Your task to perform on an android device: Find coffee shops on Maps Image 0: 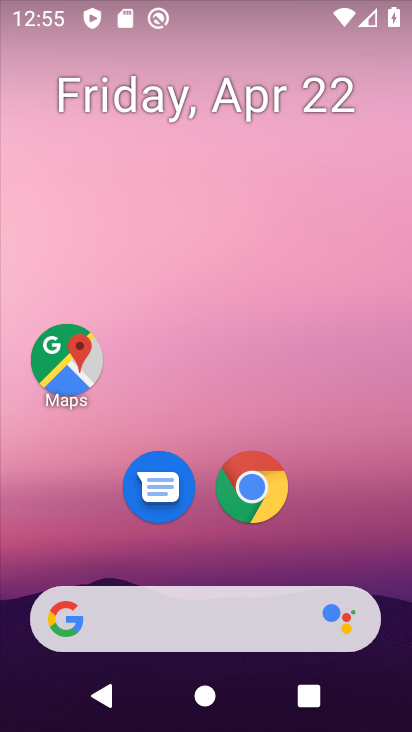
Step 0: click (70, 364)
Your task to perform on an android device: Find coffee shops on Maps Image 1: 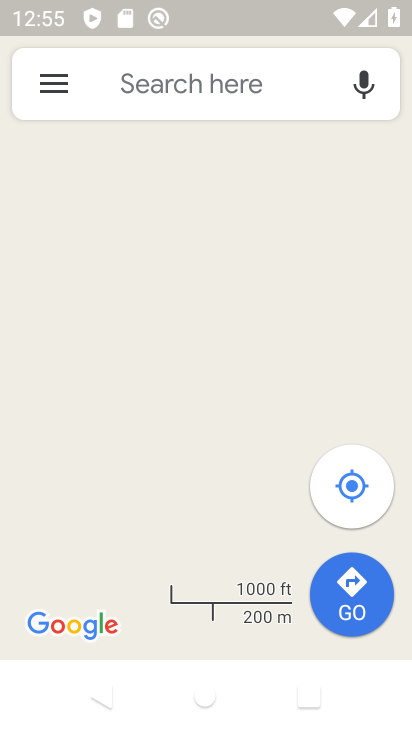
Step 1: click (216, 86)
Your task to perform on an android device: Find coffee shops on Maps Image 2: 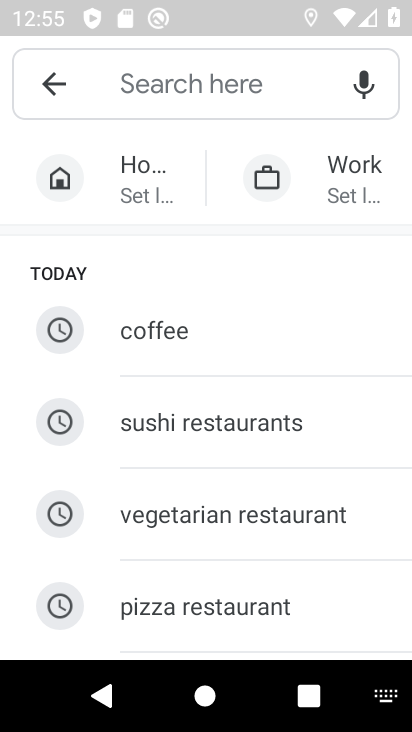
Step 2: type "coffee shops"
Your task to perform on an android device: Find coffee shops on Maps Image 3: 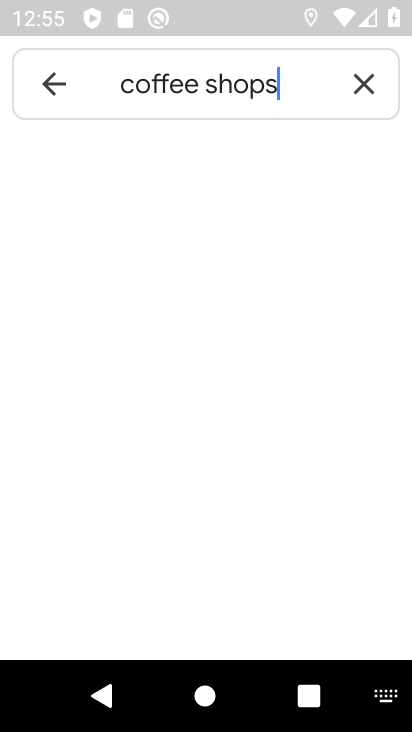
Step 3: type ""
Your task to perform on an android device: Find coffee shops on Maps Image 4: 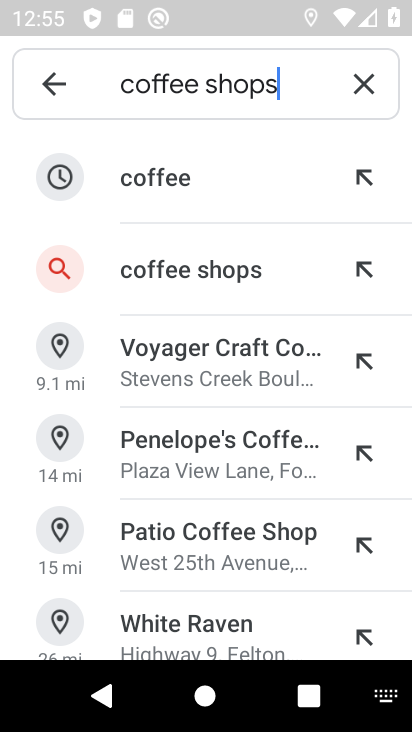
Step 4: click (200, 272)
Your task to perform on an android device: Find coffee shops on Maps Image 5: 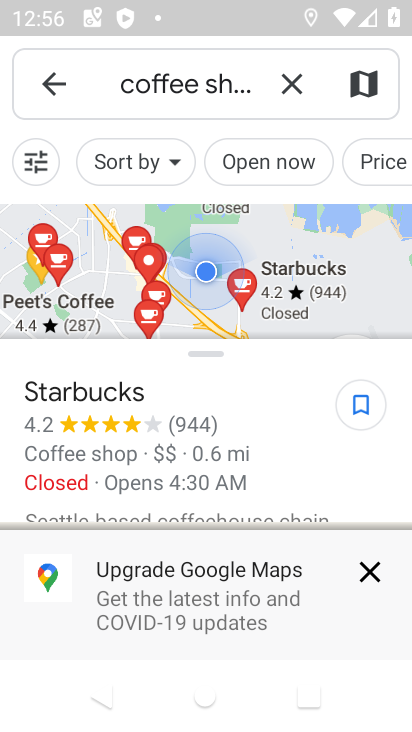
Step 5: task complete